Your task to perform on an android device: Open Chrome and go to settings Image 0: 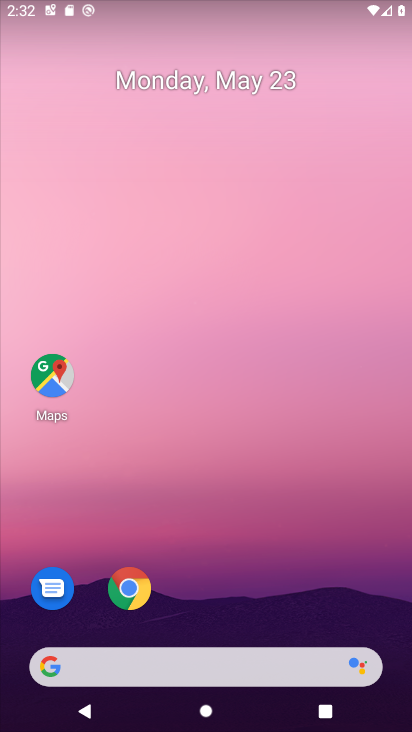
Step 0: click (207, 188)
Your task to perform on an android device: Open Chrome and go to settings Image 1: 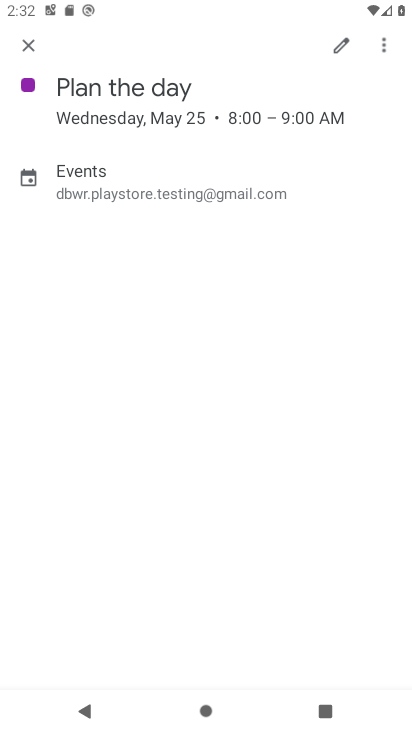
Step 1: press home button
Your task to perform on an android device: Open Chrome and go to settings Image 2: 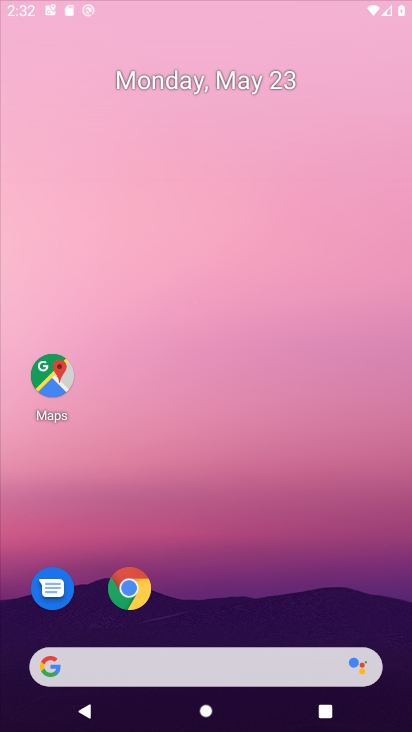
Step 2: drag from (246, 616) to (284, 199)
Your task to perform on an android device: Open Chrome and go to settings Image 3: 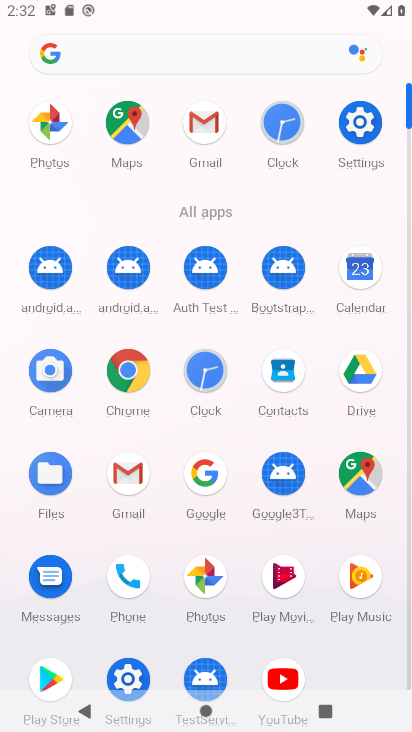
Step 3: click (125, 372)
Your task to perform on an android device: Open Chrome and go to settings Image 4: 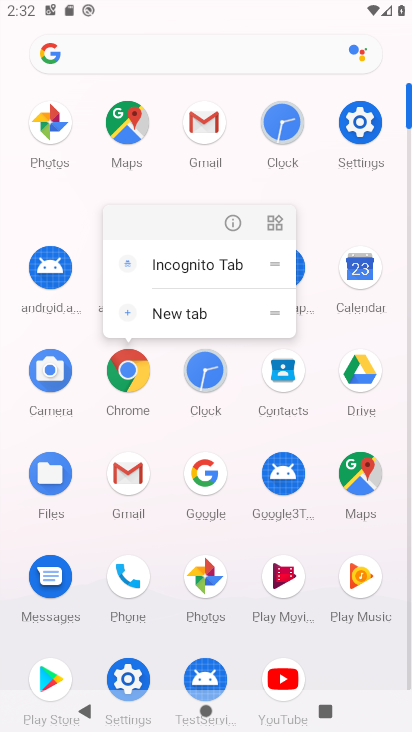
Step 4: click (235, 223)
Your task to perform on an android device: Open Chrome and go to settings Image 5: 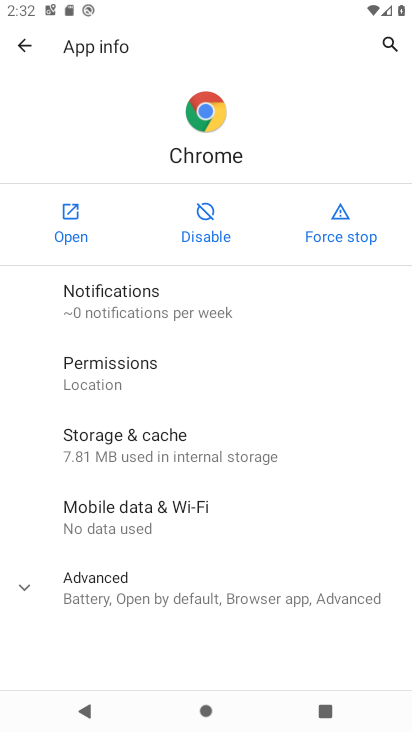
Step 5: click (65, 229)
Your task to perform on an android device: Open Chrome and go to settings Image 6: 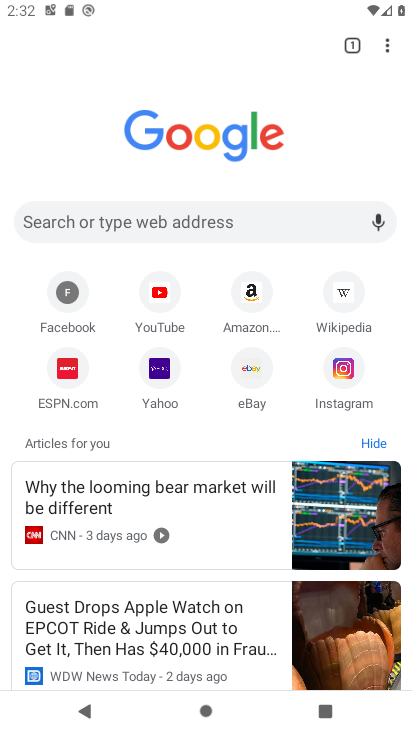
Step 6: click (387, 36)
Your task to perform on an android device: Open Chrome and go to settings Image 7: 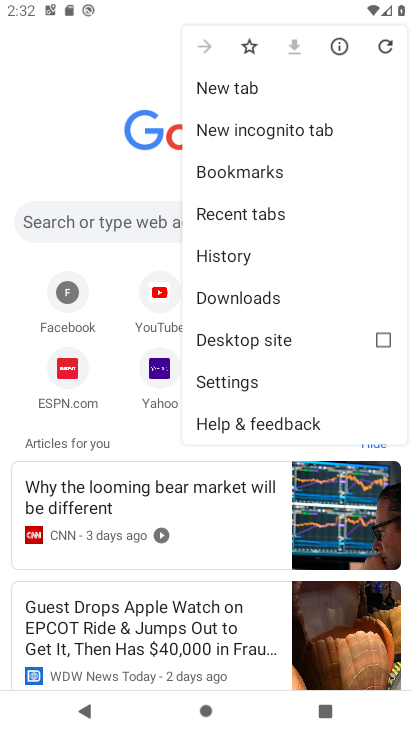
Step 7: click (259, 385)
Your task to perform on an android device: Open Chrome and go to settings Image 8: 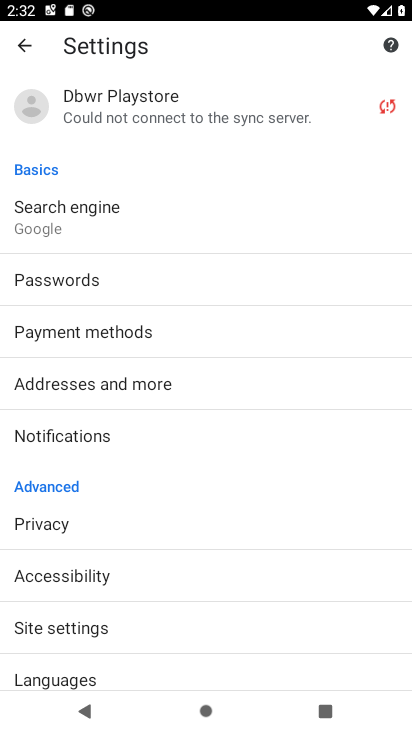
Step 8: drag from (221, 530) to (233, 233)
Your task to perform on an android device: Open Chrome and go to settings Image 9: 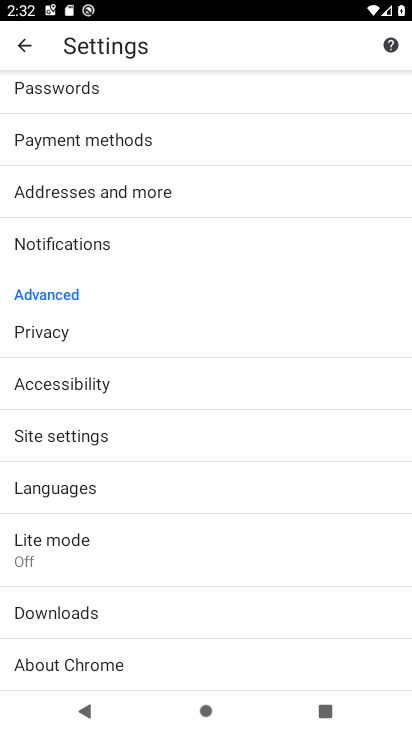
Step 9: click (161, 424)
Your task to perform on an android device: Open Chrome and go to settings Image 10: 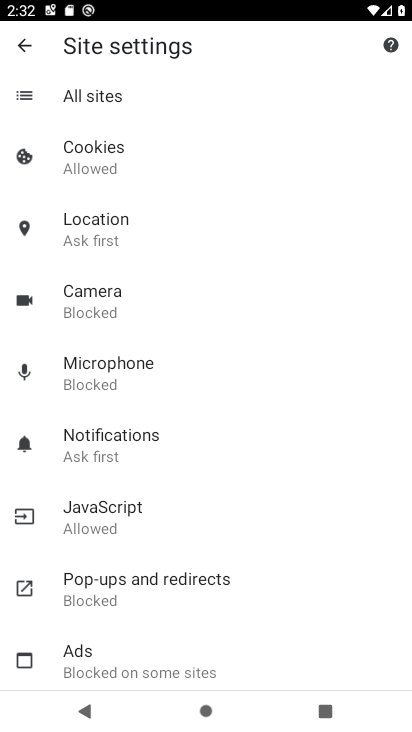
Step 10: task complete